Your task to perform on an android device: delete a single message in the gmail app Image 0: 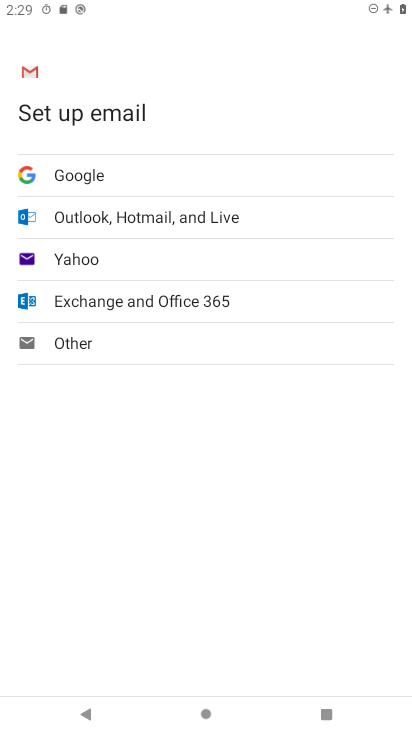
Step 0: press home button
Your task to perform on an android device: delete a single message in the gmail app Image 1: 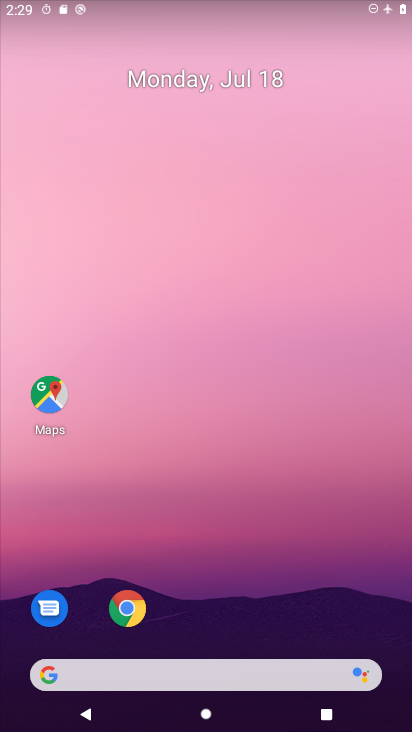
Step 1: drag from (232, 718) to (260, 75)
Your task to perform on an android device: delete a single message in the gmail app Image 2: 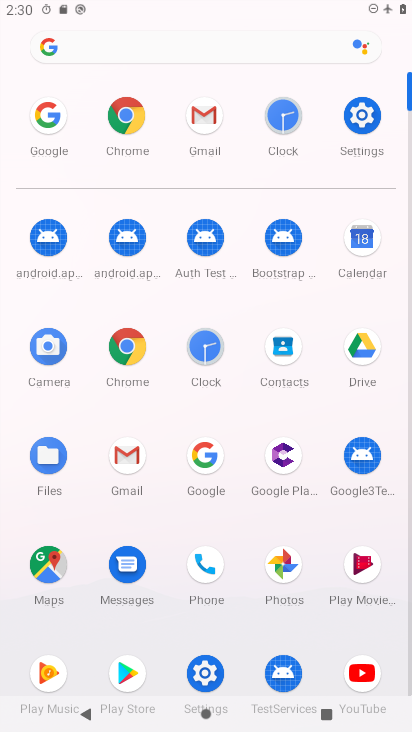
Step 2: click (134, 460)
Your task to perform on an android device: delete a single message in the gmail app Image 3: 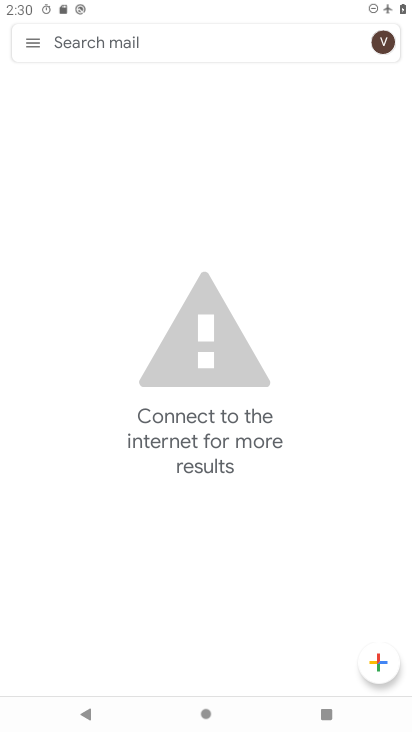
Step 3: click (42, 48)
Your task to perform on an android device: delete a single message in the gmail app Image 4: 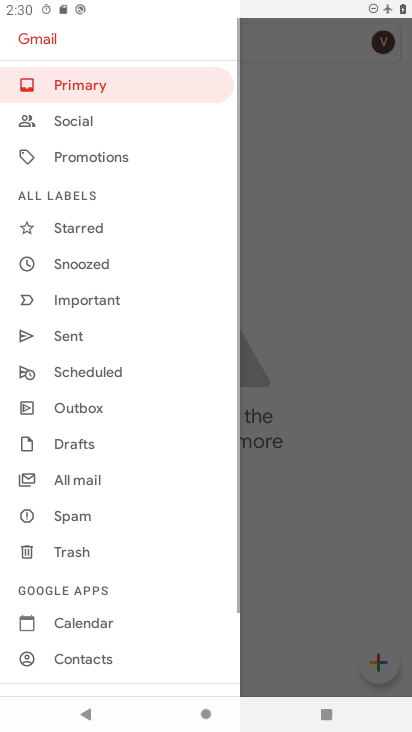
Step 4: click (77, 80)
Your task to perform on an android device: delete a single message in the gmail app Image 5: 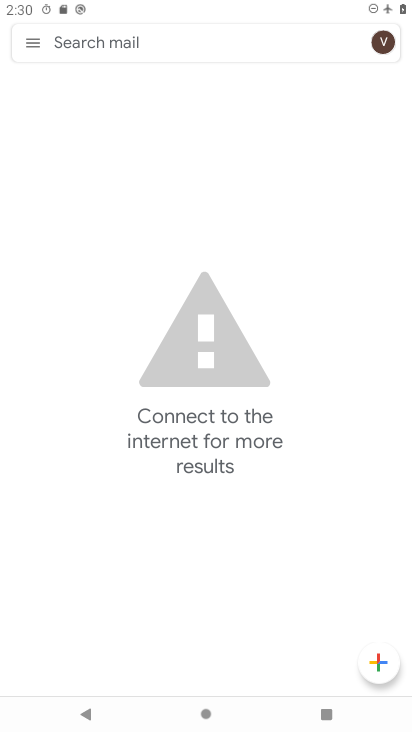
Step 5: task complete